Your task to perform on an android device: turn off airplane mode Image 0: 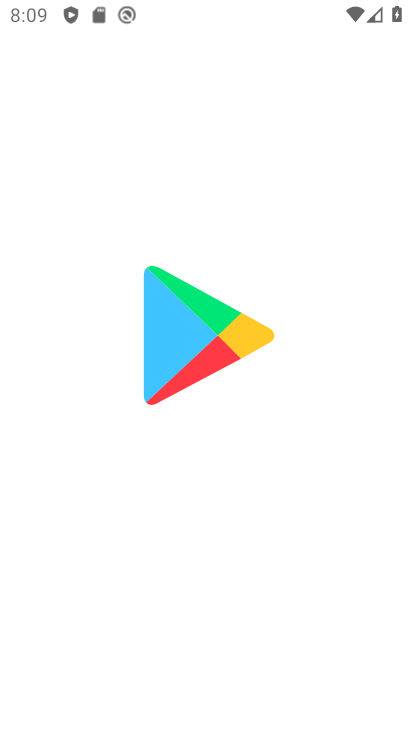
Step 0: press home button
Your task to perform on an android device: turn off airplane mode Image 1: 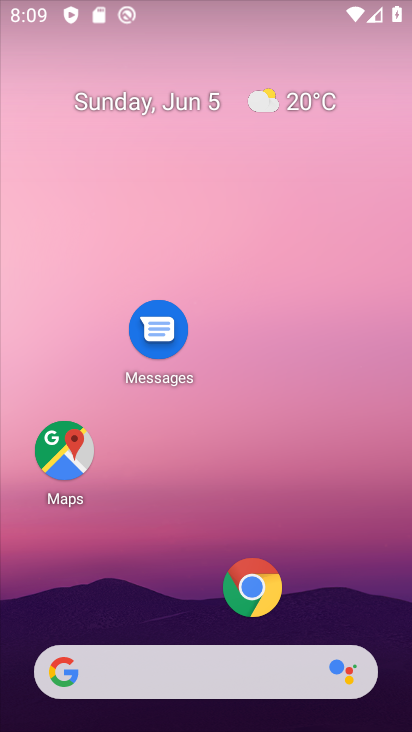
Step 1: drag from (209, 607) to (221, 287)
Your task to perform on an android device: turn off airplane mode Image 2: 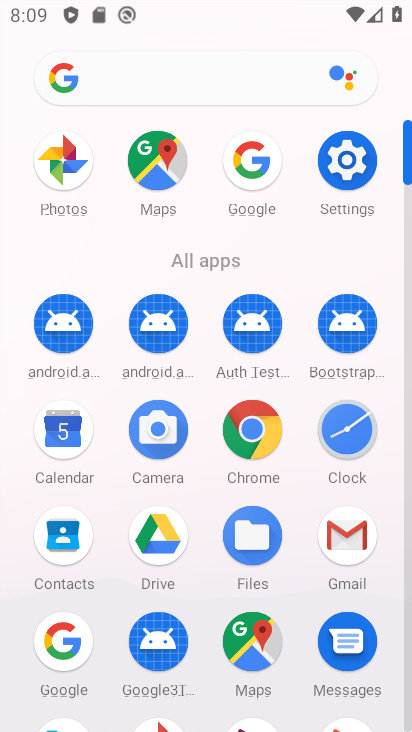
Step 2: click (349, 187)
Your task to perform on an android device: turn off airplane mode Image 3: 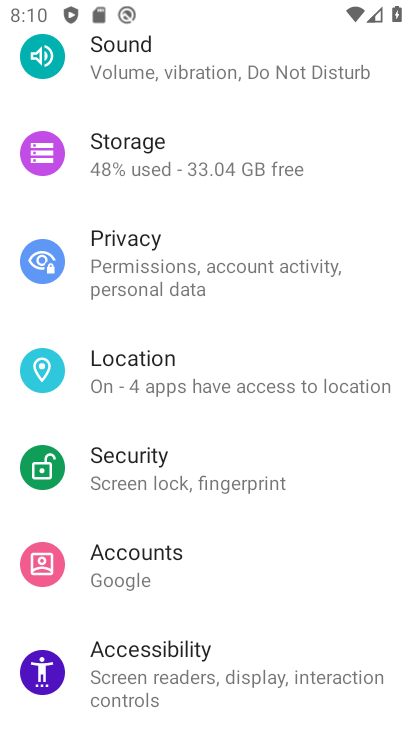
Step 3: drag from (216, 312) to (247, 535)
Your task to perform on an android device: turn off airplane mode Image 4: 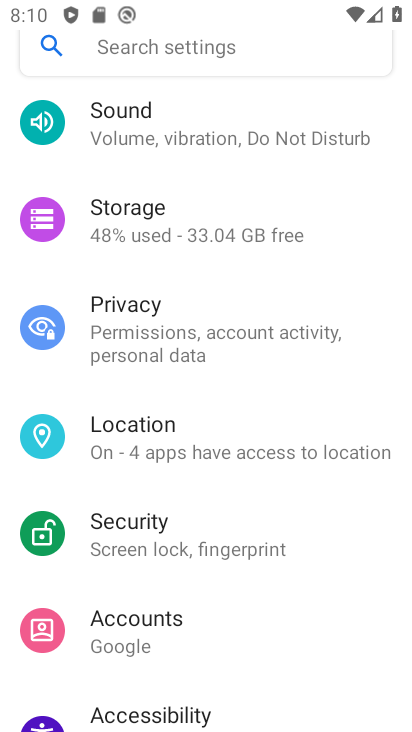
Step 4: drag from (186, 337) to (169, 700)
Your task to perform on an android device: turn off airplane mode Image 5: 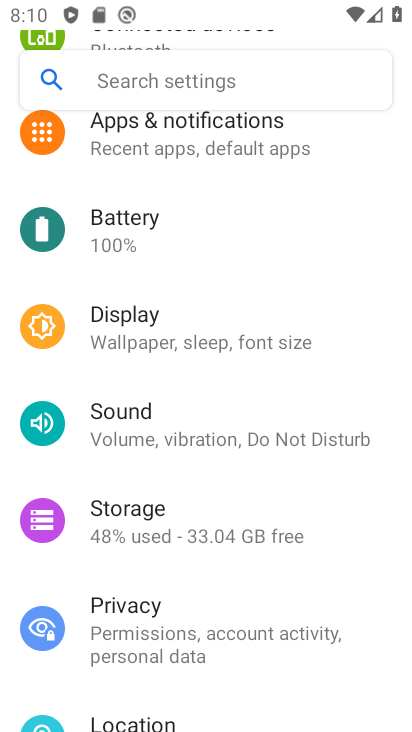
Step 5: drag from (184, 445) to (184, 724)
Your task to perform on an android device: turn off airplane mode Image 6: 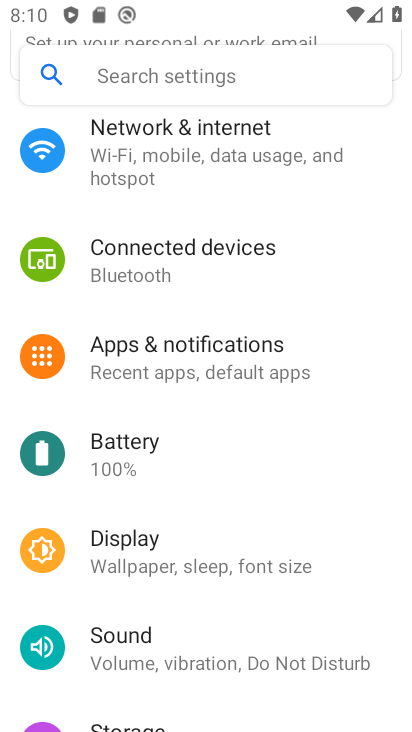
Step 6: drag from (228, 510) to (217, 690)
Your task to perform on an android device: turn off airplane mode Image 7: 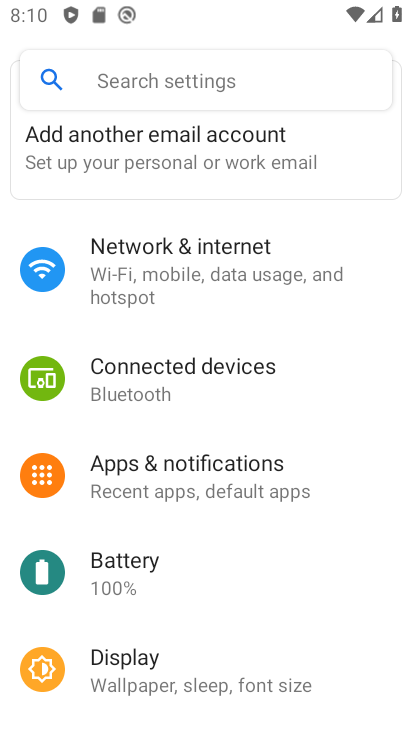
Step 7: drag from (212, 450) to (213, 630)
Your task to perform on an android device: turn off airplane mode Image 8: 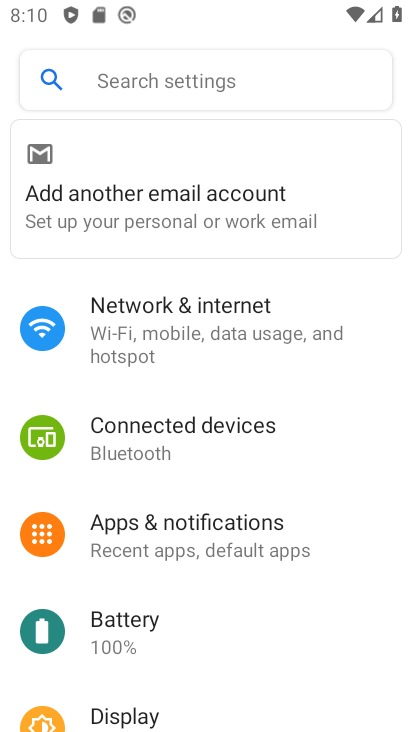
Step 8: click (268, 348)
Your task to perform on an android device: turn off airplane mode Image 9: 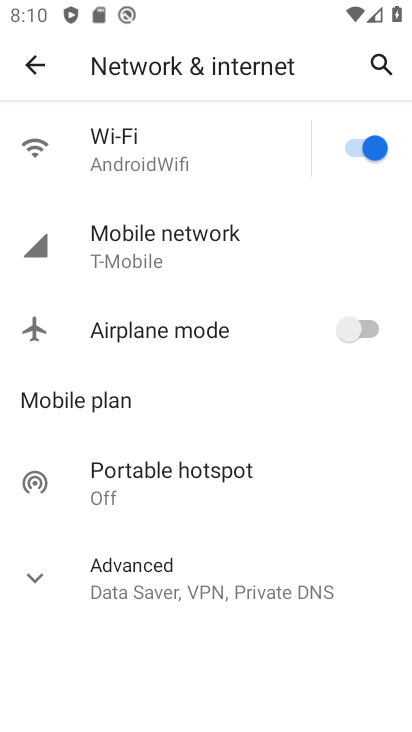
Step 9: task complete